Your task to perform on an android device: toggle airplane mode Image 0: 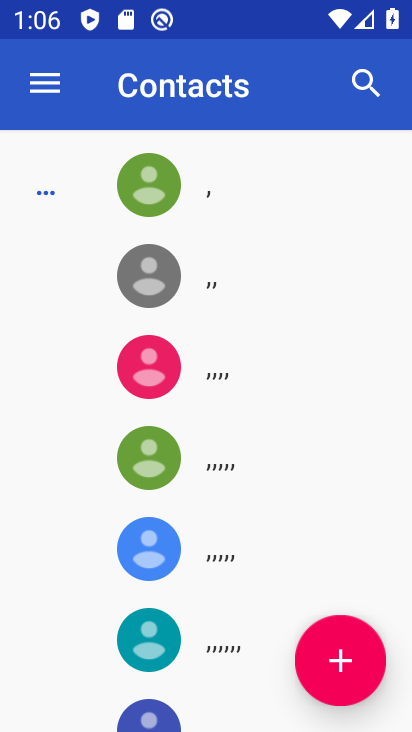
Step 0: press home button
Your task to perform on an android device: toggle airplane mode Image 1: 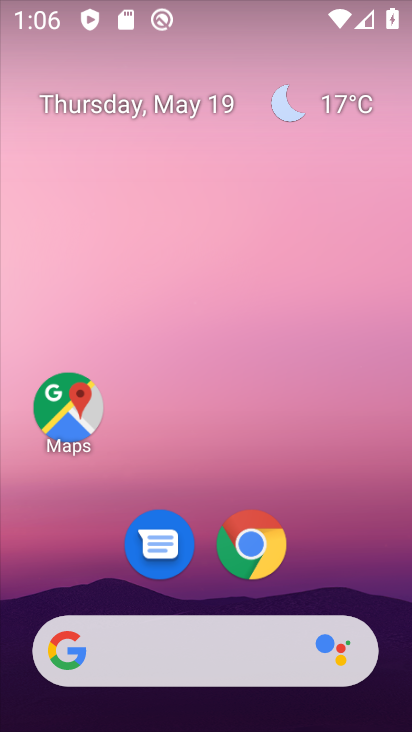
Step 1: drag from (220, 726) to (395, 78)
Your task to perform on an android device: toggle airplane mode Image 2: 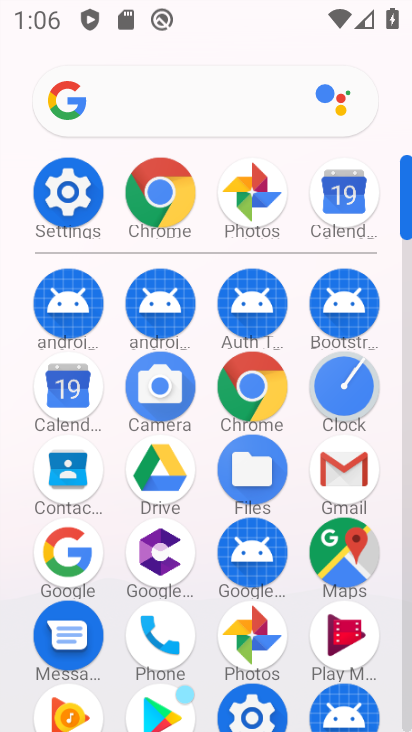
Step 2: click (72, 193)
Your task to perform on an android device: toggle airplane mode Image 3: 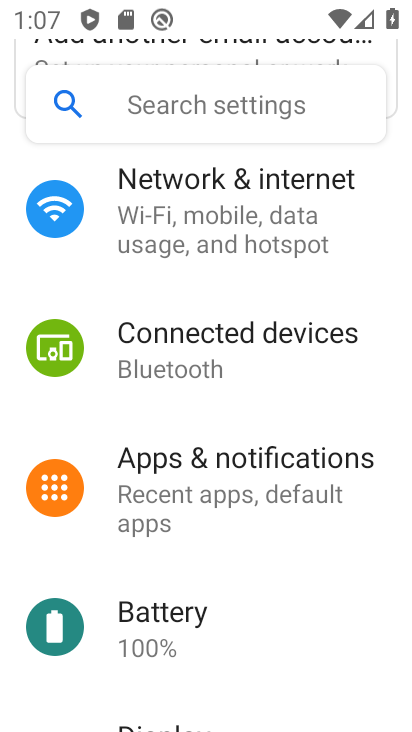
Step 3: drag from (239, 182) to (263, 473)
Your task to perform on an android device: toggle airplane mode Image 4: 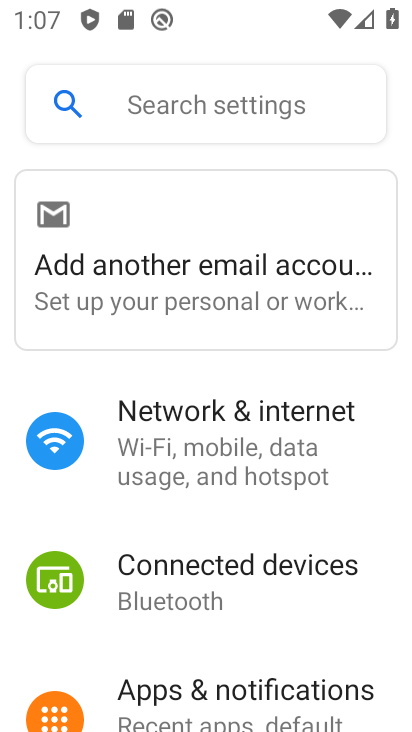
Step 4: click (226, 424)
Your task to perform on an android device: toggle airplane mode Image 5: 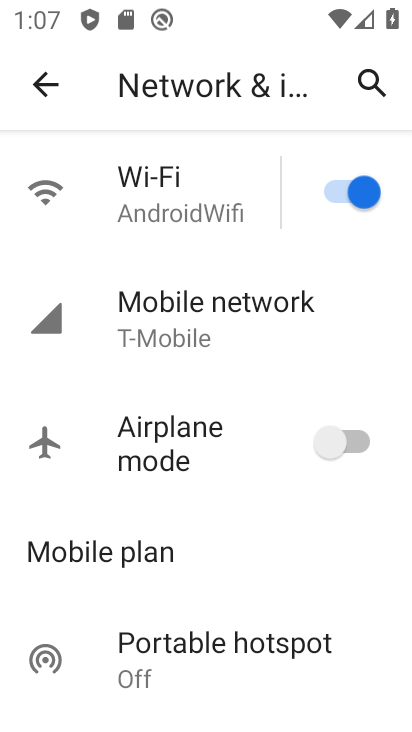
Step 5: click (356, 442)
Your task to perform on an android device: toggle airplane mode Image 6: 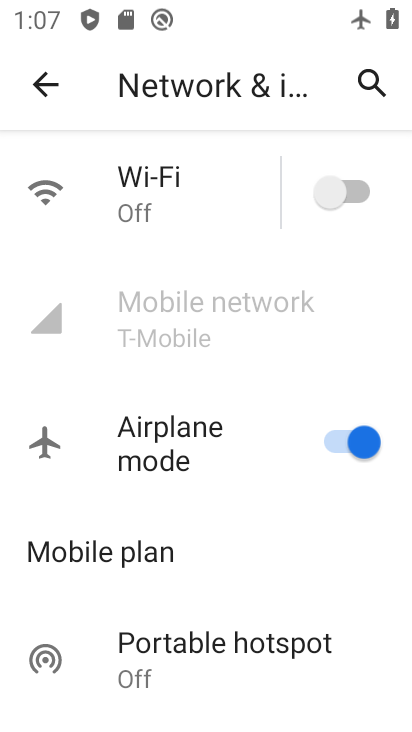
Step 6: task complete